Your task to perform on an android device: Open Yahoo.com Image 0: 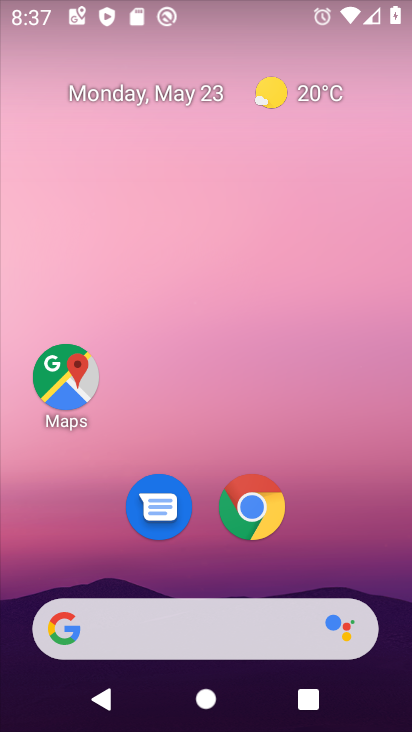
Step 0: click (254, 520)
Your task to perform on an android device: Open Yahoo.com Image 1: 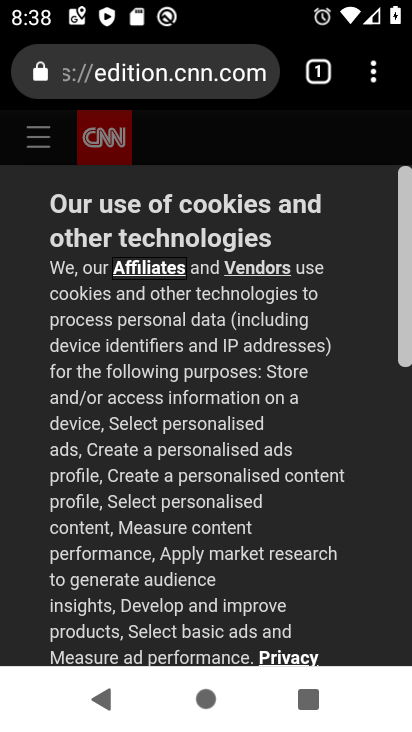
Step 1: click (131, 92)
Your task to perform on an android device: Open Yahoo.com Image 2: 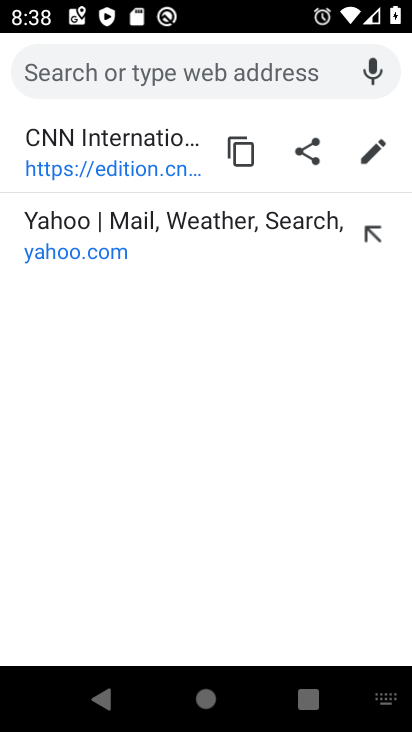
Step 2: click (77, 253)
Your task to perform on an android device: Open Yahoo.com Image 3: 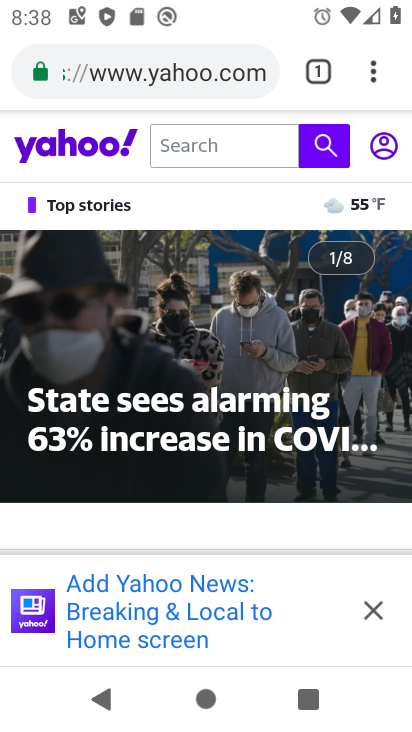
Step 3: task complete